Your task to perform on an android device: Is it going to rain this weekend? Image 0: 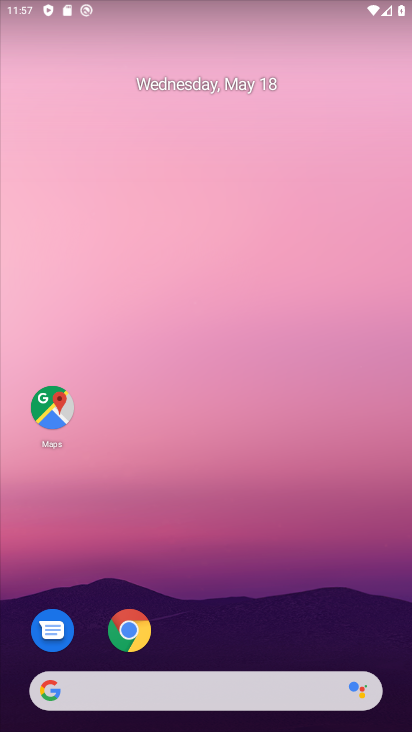
Step 0: drag from (316, 65) to (390, 408)
Your task to perform on an android device: Is it going to rain this weekend? Image 1: 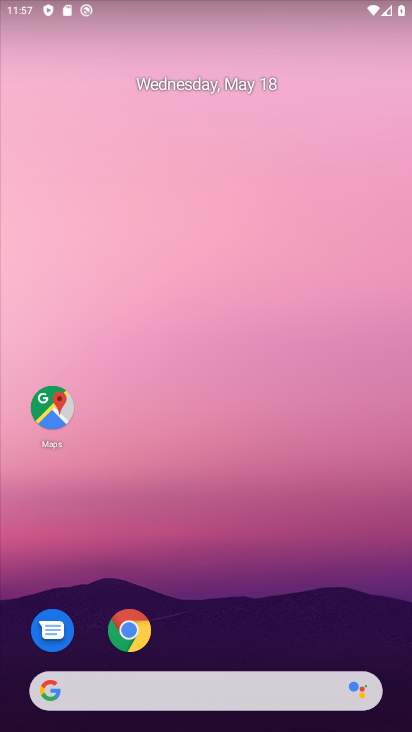
Step 1: drag from (210, 621) to (258, 39)
Your task to perform on an android device: Is it going to rain this weekend? Image 2: 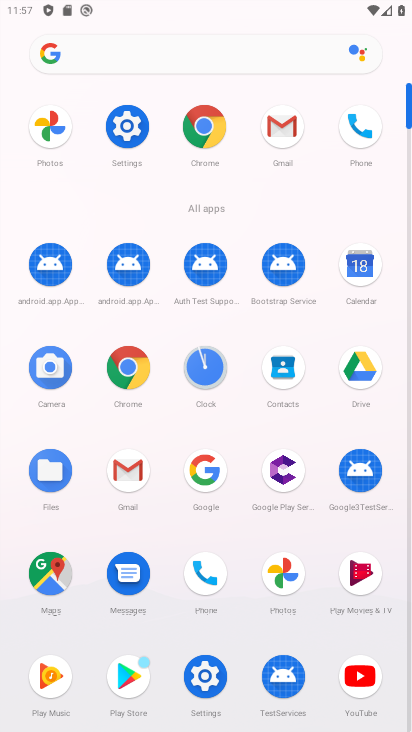
Step 2: click (371, 255)
Your task to perform on an android device: Is it going to rain this weekend? Image 3: 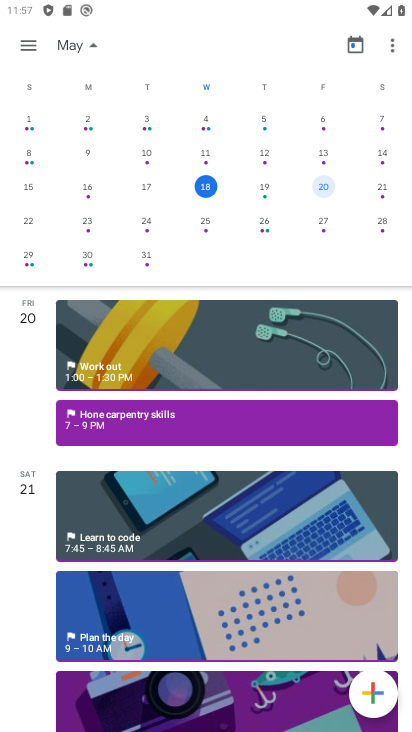
Step 3: drag from (205, 545) to (289, 147)
Your task to perform on an android device: Is it going to rain this weekend? Image 4: 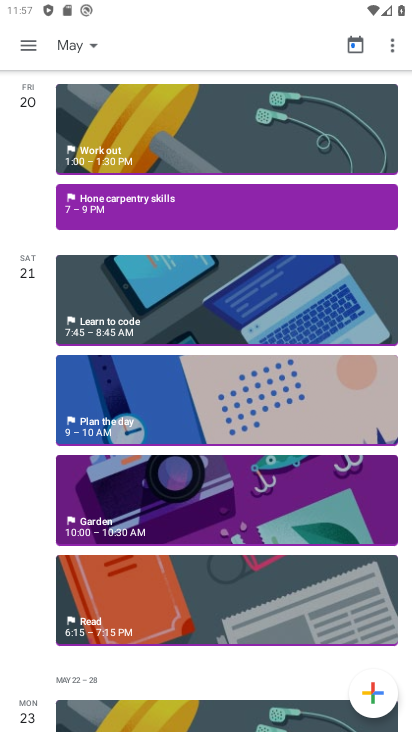
Step 4: click (72, 42)
Your task to perform on an android device: Is it going to rain this weekend? Image 5: 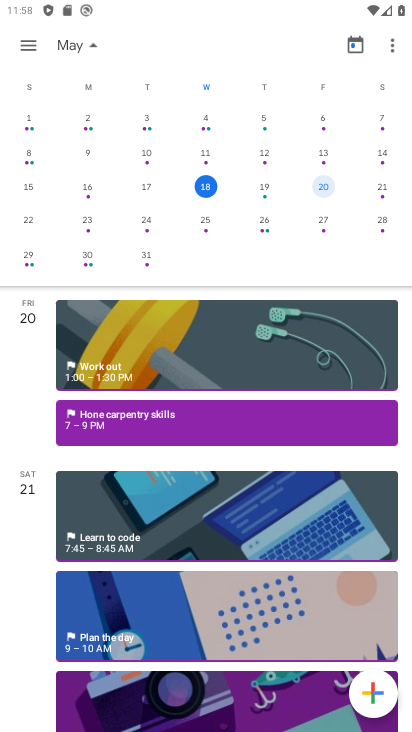
Step 5: click (373, 193)
Your task to perform on an android device: Is it going to rain this weekend? Image 6: 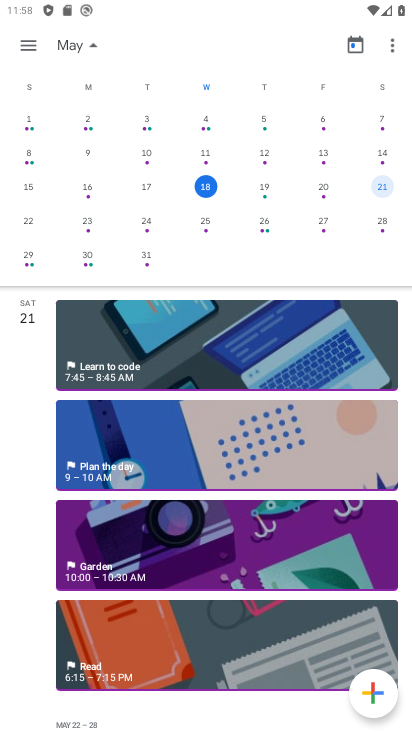
Step 6: task complete